Your task to perform on an android device: Go to settings Image 0: 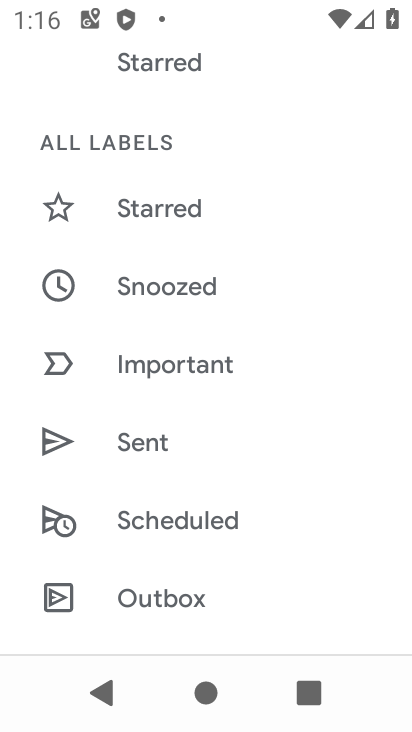
Step 0: press home button
Your task to perform on an android device: Go to settings Image 1: 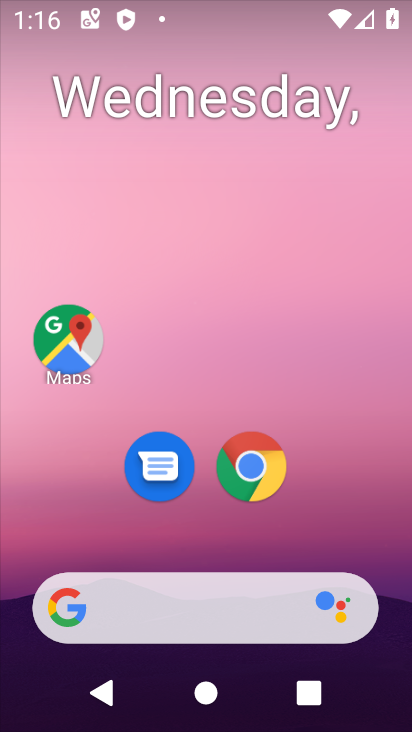
Step 1: drag from (343, 403) to (326, 39)
Your task to perform on an android device: Go to settings Image 2: 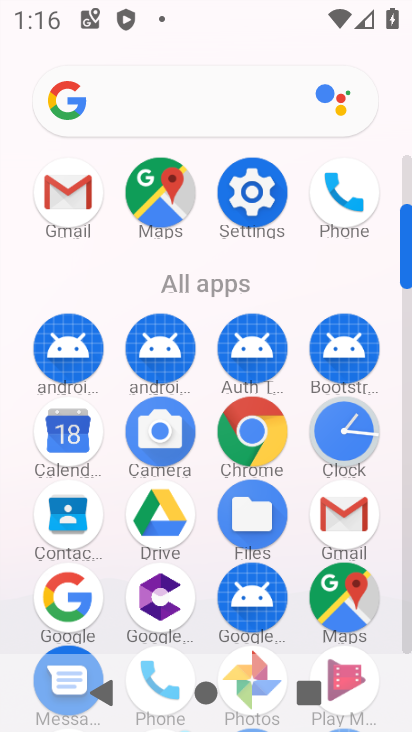
Step 2: click (263, 187)
Your task to perform on an android device: Go to settings Image 3: 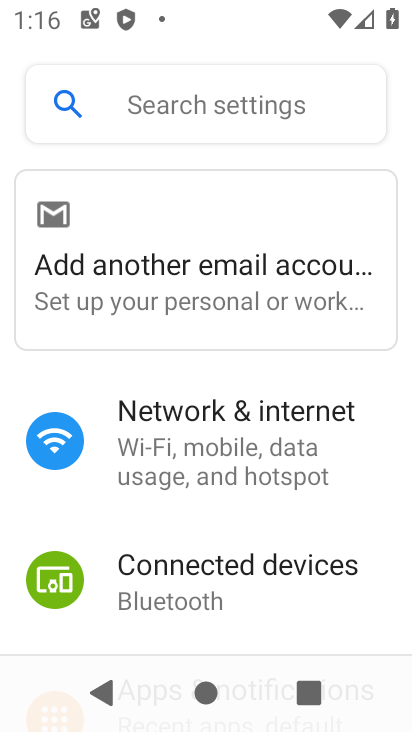
Step 3: task complete